Your task to perform on an android device: Go to internet settings Image 0: 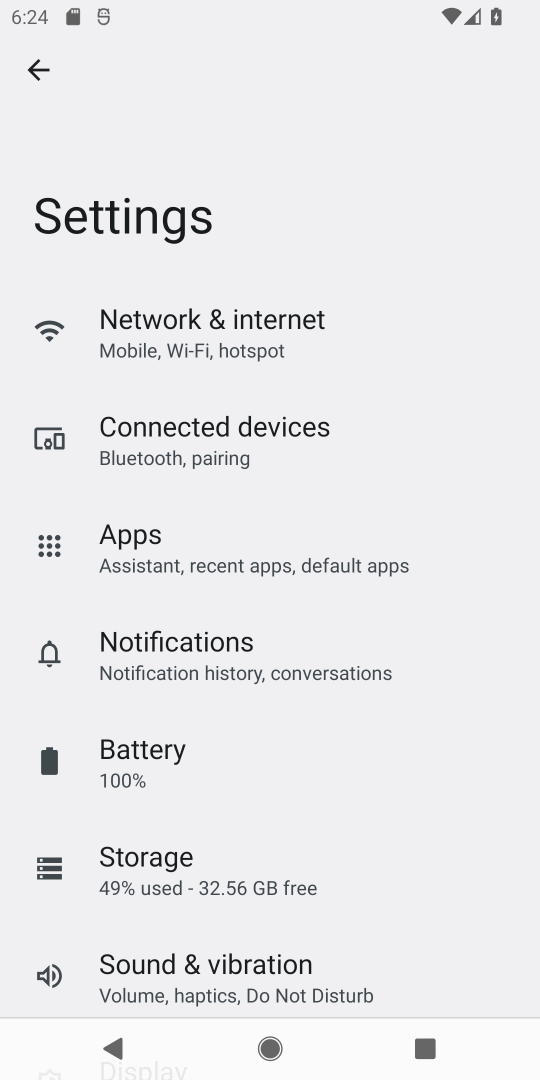
Step 0: click (261, 309)
Your task to perform on an android device: Go to internet settings Image 1: 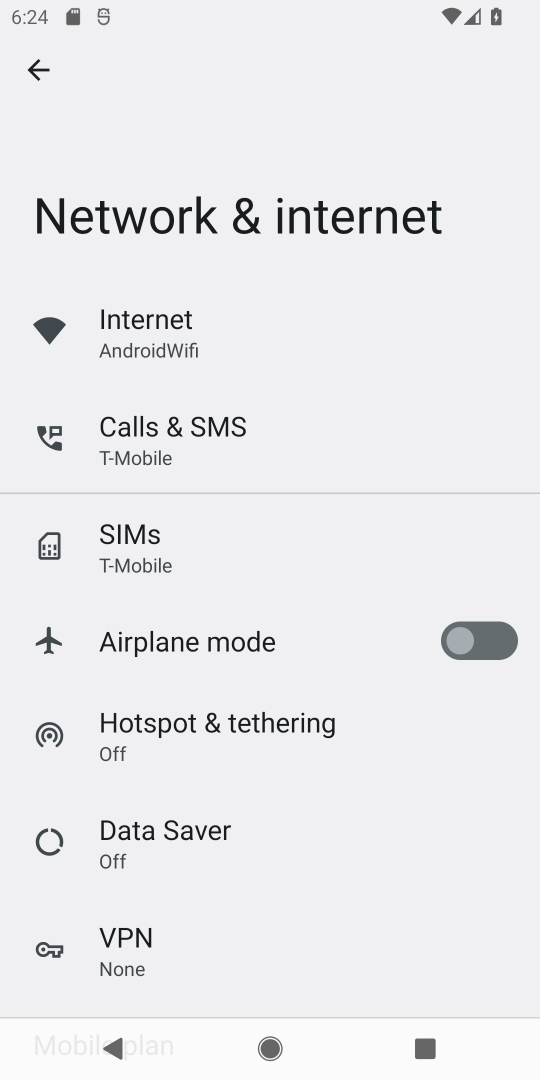
Step 1: click (240, 344)
Your task to perform on an android device: Go to internet settings Image 2: 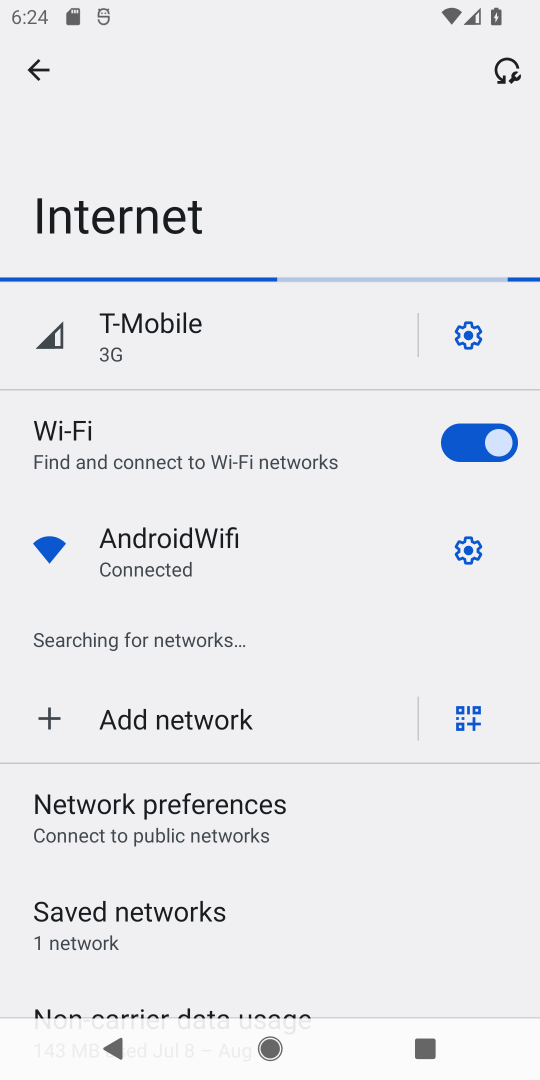
Step 2: task complete